Your task to perform on an android device: Open Google Chrome Image 0: 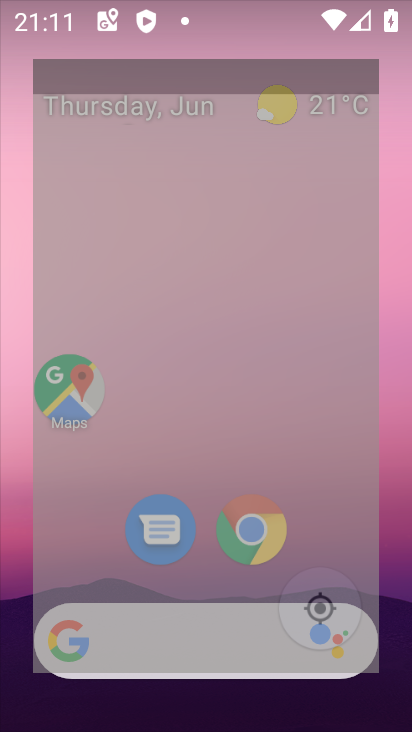
Step 0: press home button
Your task to perform on an android device: Open Google Chrome Image 1: 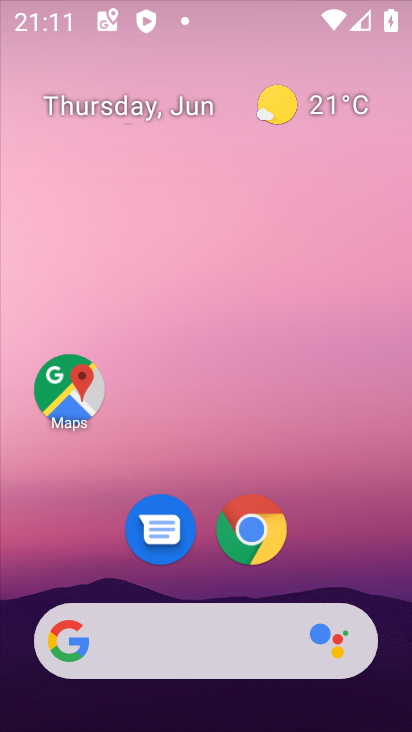
Step 1: click (254, 525)
Your task to perform on an android device: Open Google Chrome Image 2: 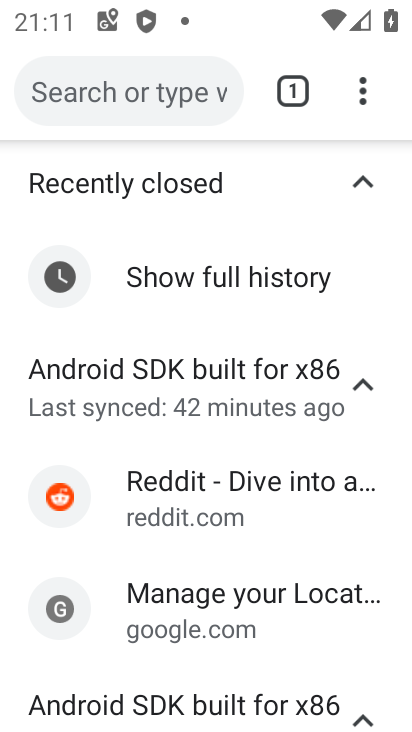
Step 2: click (364, 87)
Your task to perform on an android device: Open Google Chrome Image 3: 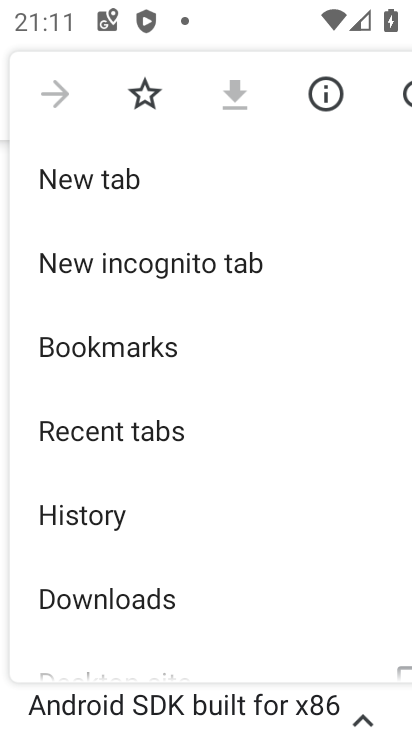
Step 3: click (87, 174)
Your task to perform on an android device: Open Google Chrome Image 4: 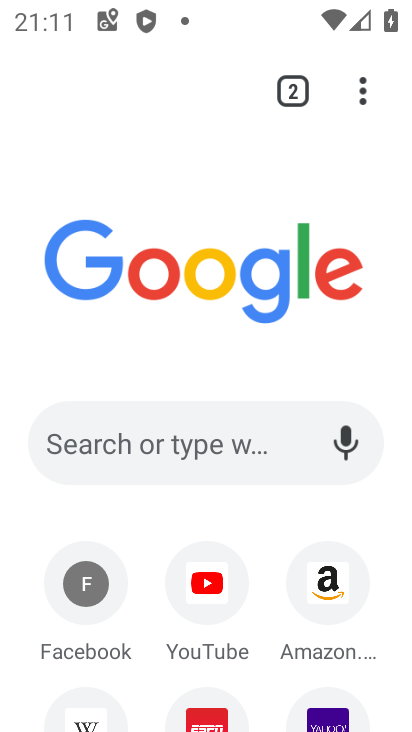
Step 4: task complete